Your task to perform on an android device: Add "usb-c to usb-a" to the cart on amazon, then select checkout. Image 0: 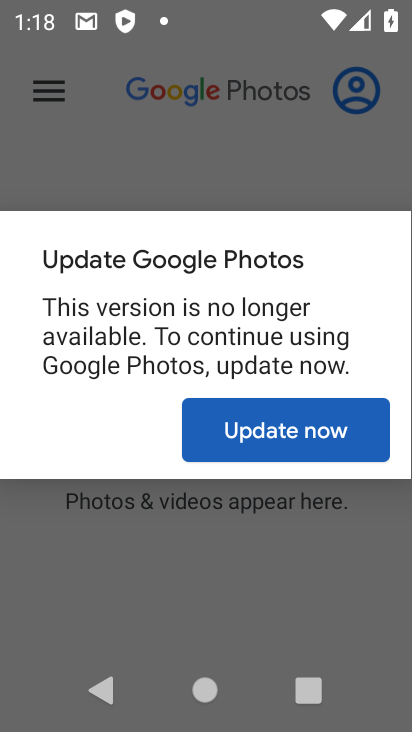
Step 0: press home button
Your task to perform on an android device: Add "usb-c to usb-a" to the cart on amazon, then select checkout. Image 1: 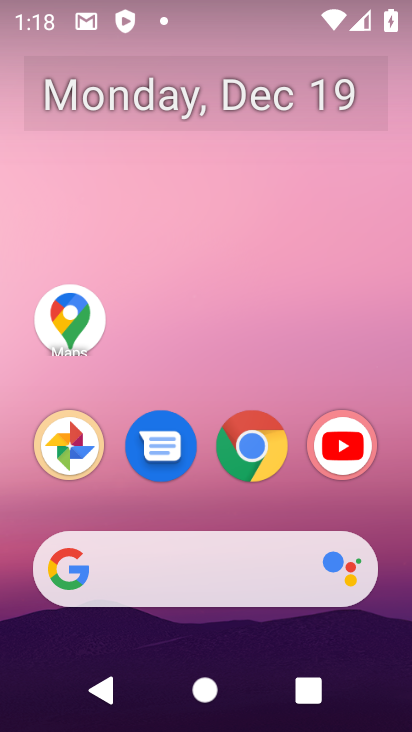
Step 1: click (231, 474)
Your task to perform on an android device: Add "usb-c to usb-a" to the cart on amazon, then select checkout. Image 2: 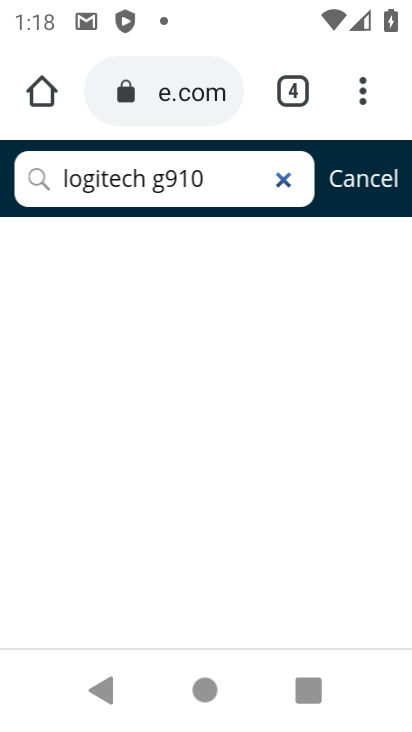
Step 2: press home button
Your task to perform on an android device: Add "usb-c to usb-a" to the cart on amazon, then select checkout. Image 3: 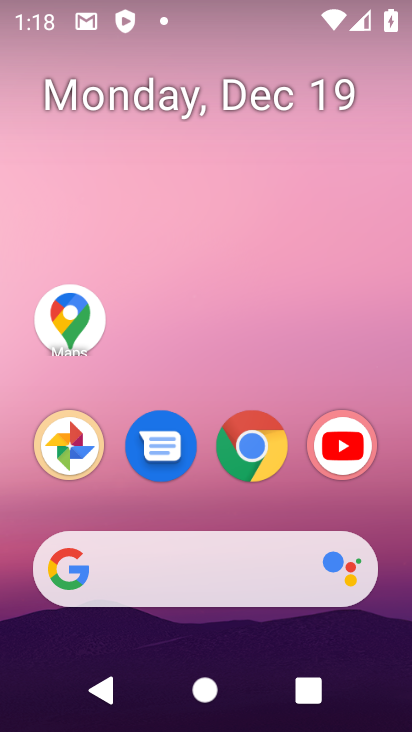
Step 3: click (239, 439)
Your task to perform on an android device: Add "usb-c to usb-a" to the cart on amazon, then select checkout. Image 4: 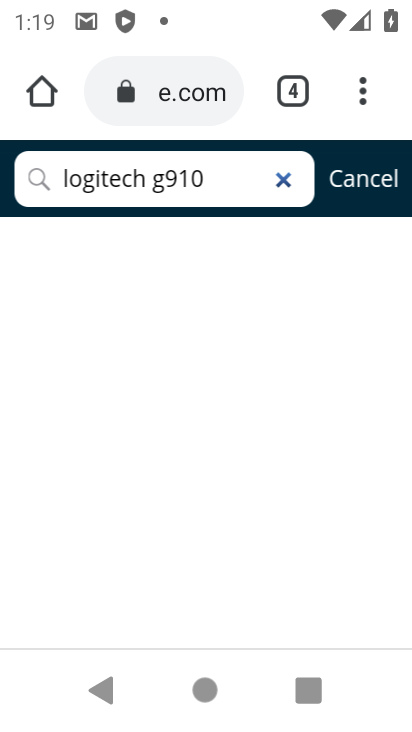
Step 4: click (193, 103)
Your task to perform on an android device: Add "usb-c to usb-a" to the cart on amazon, then select checkout. Image 5: 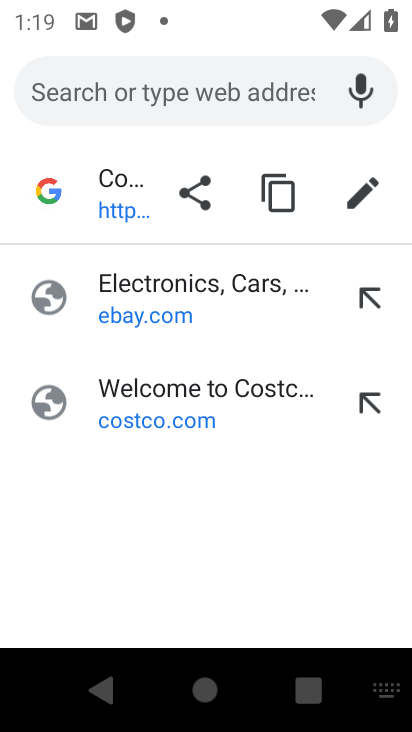
Step 5: type "amazon"
Your task to perform on an android device: Add "usb-c to usb-a" to the cart on amazon, then select checkout. Image 6: 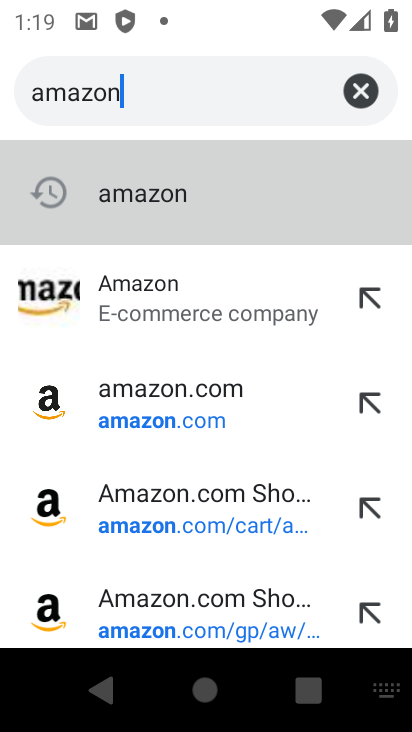
Step 6: click (166, 295)
Your task to perform on an android device: Add "usb-c to usb-a" to the cart on amazon, then select checkout. Image 7: 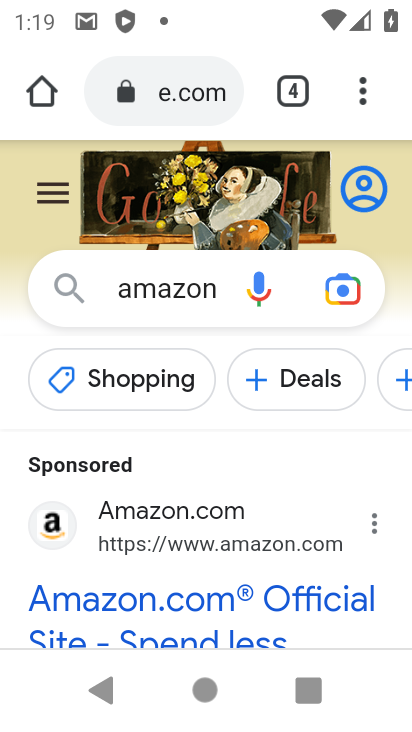
Step 7: click (158, 616)
Your task to perform on an android device: Add "usb-c to usb-a" to the cart on amazon, then select checkout. Image 8: 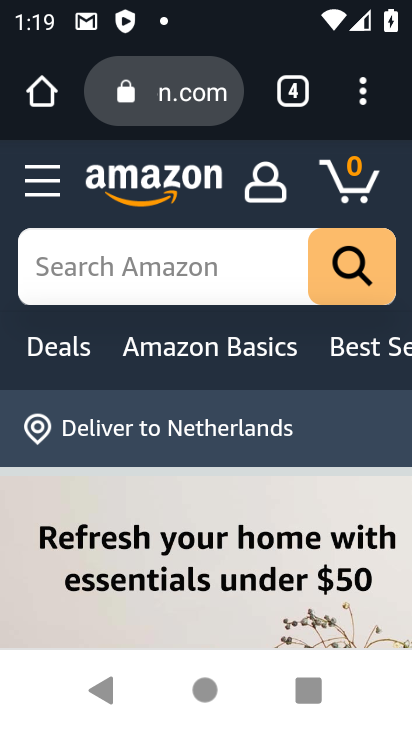
Step 8: click (130, 274)
Your task to perform on an android device: Add "usb-c to usb-a" to the cart on amazon, then select checkout. Image 9: 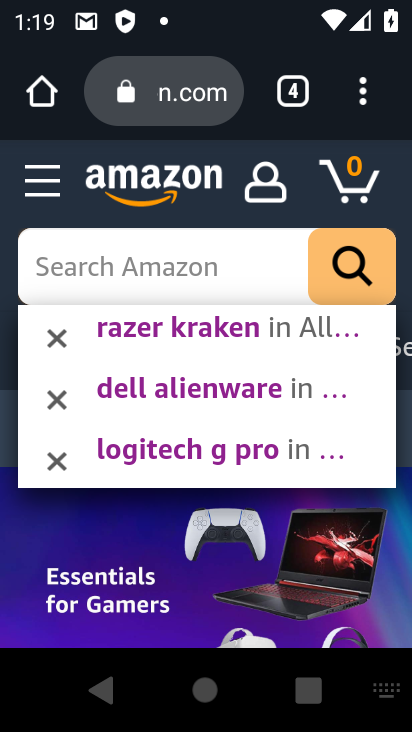
Step 9: type "usb-c to usb-a"
Your task to perform on an android device: Add "usb-c to usb-a" to the cart on amazon, then select checkout. Image 10: 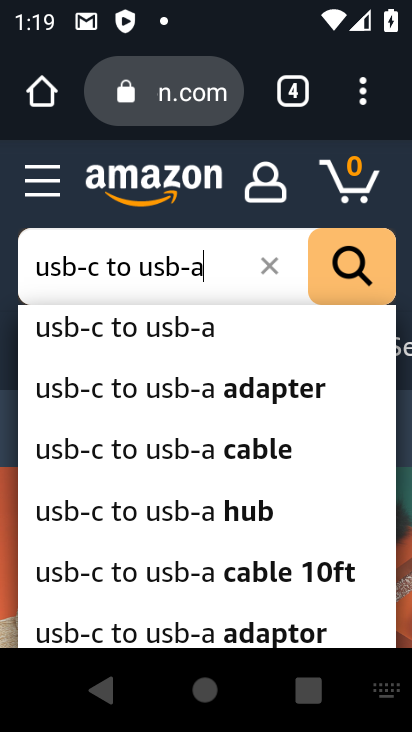
Step 10: click (343, 282)
Your task to perform on an android device: Add "usb-c to usb-a" to the cart on amazon, then select checkout. Image 11: 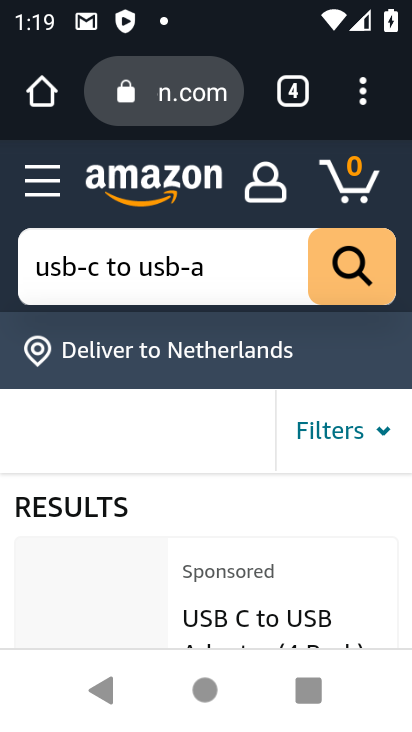
Step 11: click (273, 588)
Your task to perform on an android device: Add "usb-c to usb-a" to the cart on amazon, then select checkout. Image 12: 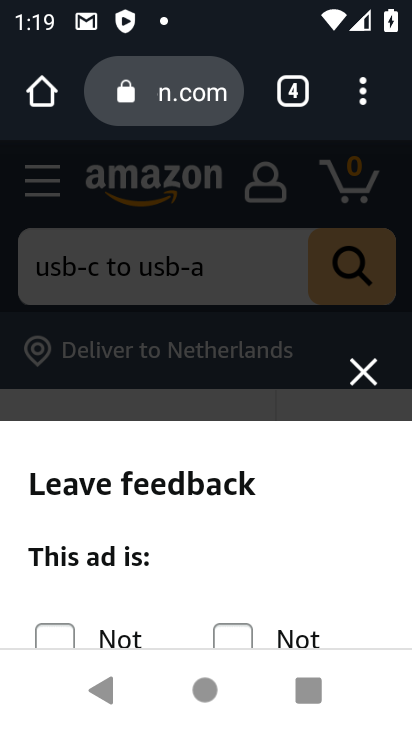
Step 12: click (358, 387)
Your task to perform on an android device: Add "usb-c to usb-a" to the cart on amazon, then select checkout. Image 13: 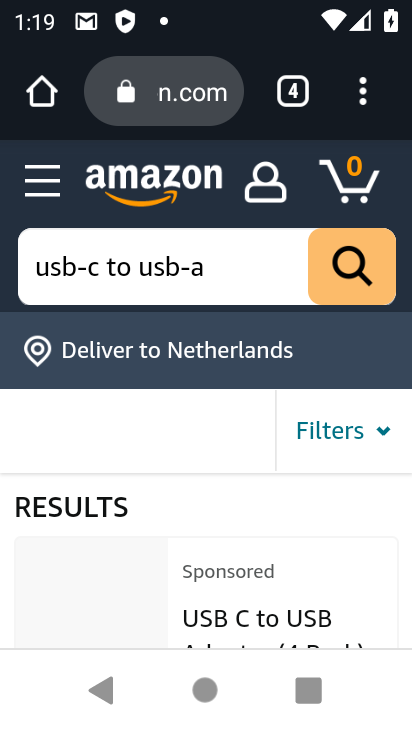
Step 13: drag from (230, 525) to (185, 87)
Your task to perform on an android device: Add "usb-c to usb-a" to the cart on amazon, then select checkout. Image 14: 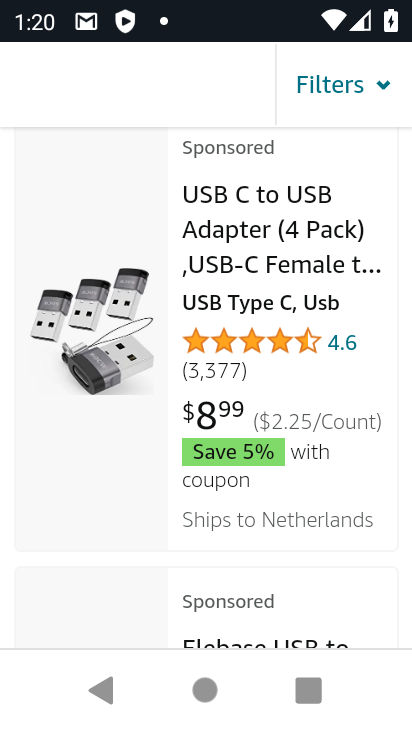
Step 14: click (284, 224)
Your task to perform on an android device: Add "usb-c to usb-a" to the cart on amazon, then select checkout. Image 15: 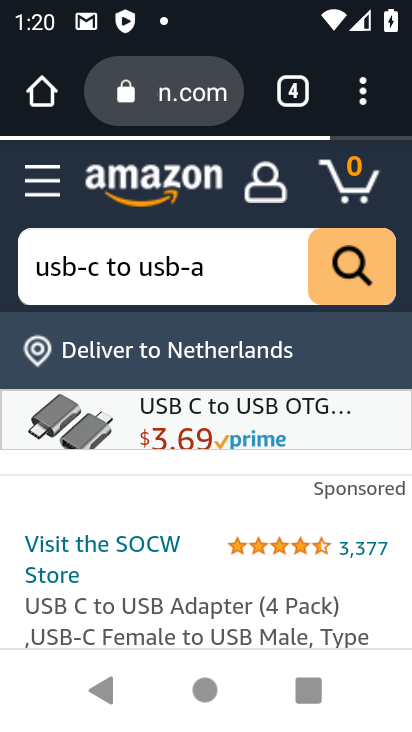
Step 15: task complete